Your task to perform on an android device: Clear the shopping cart on ebay.com. Add "razer thresher" to the cart on ebay.com, then select checkout. Image 0: 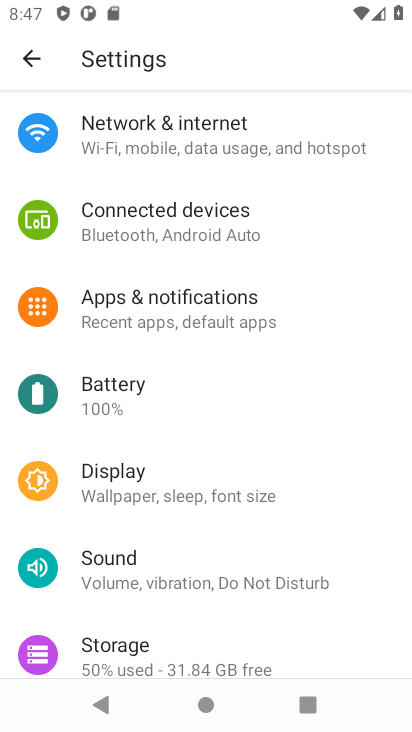
Step 0: press home button
Your task to perform on an android device: Clear the shopping cart on ebay.com. Add "razer thresher" to the cart on ebay.com, then select checkout. Image 1: 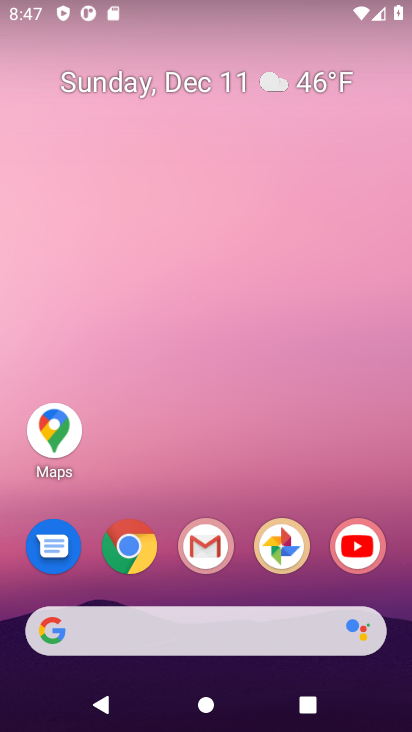
Step 1: click (127, 546)
Your task to perform on an android device: Clear the shopping cart on ebay.com. Add "razer thresher" to the cart on ebay.com, then select checkout. Image 2: 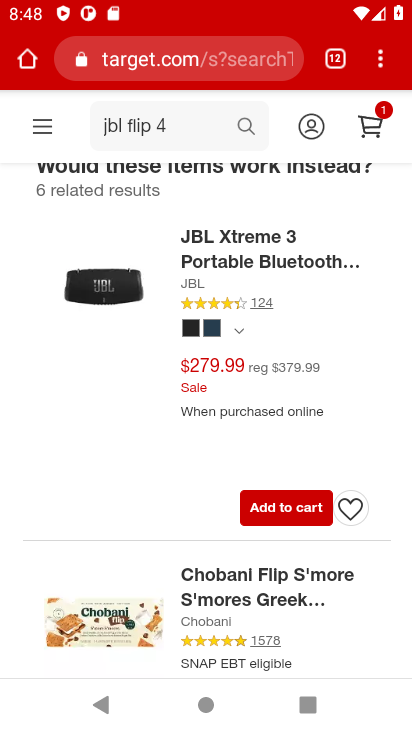
Step 2: click (145, 56)
Your task to perform on an android device: Clear the shopping cart on ebay.com. Add "razer thresher" to the cart on ebay.com, then select checkout. Image 3: 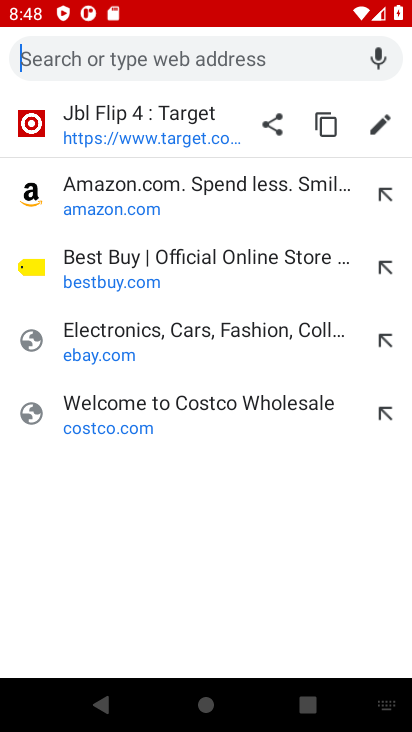
Step 3: click (90, 331)
Your task to perform on an android device: Clear the shopping cart on ebay.com. Add "razer thresher" to the cart on ebay.com, then select checkout. Image 4: 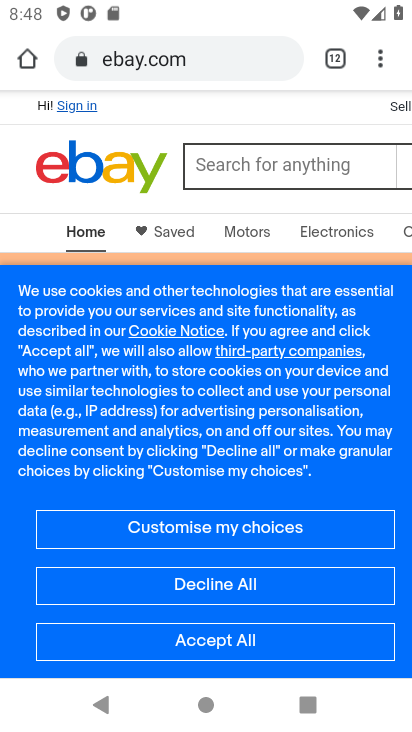
Step 4: drag from (303, 136) to (82, 125)
Your task to perform on an android device: Clear the shopping cart on ebay.com. Add "razer thresher" to the cart on ebay.com, then select checkout. Image 5: 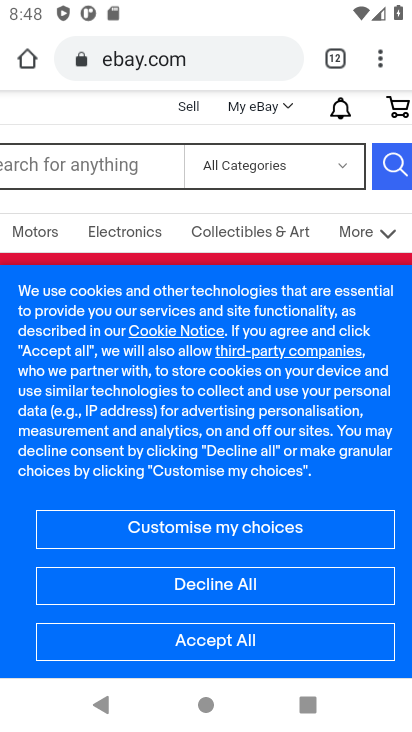
Step 5: click (395, 107)
Your task to perform on an android device: Clear the shopping cart on ebay.com. Add "razer thresher" to the cart on ebay.com, then select checkout. Image 6: 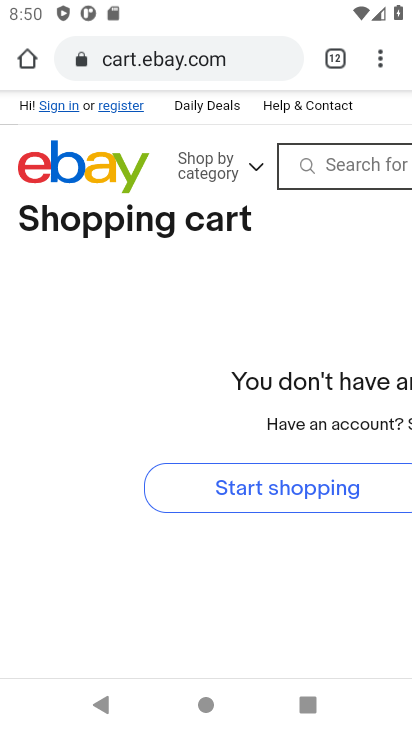
Step 6: click (364, 170)
Your task to perform on an android device: Clear the shopping cart on ebay.com. Add "razer thresher" to the cart on ebay.com, then select checkout. Image 7: 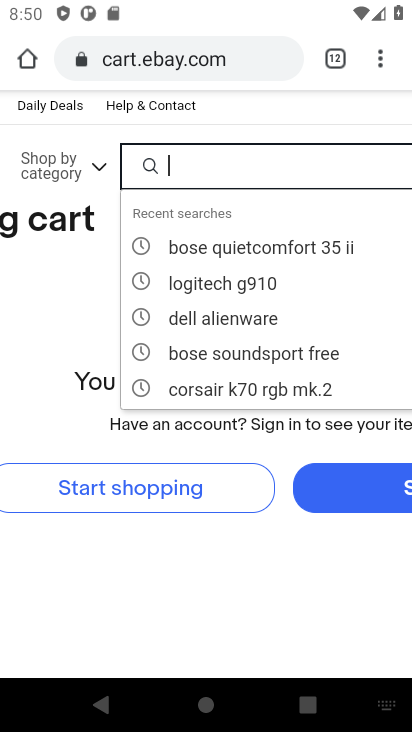
Step 7: type "razer thresher"
Your task to perform on an android device: Clear the shopping cart on ebay.com. Add "razer thresher" to the cart on ebay.com, then select checkout. Image 8: 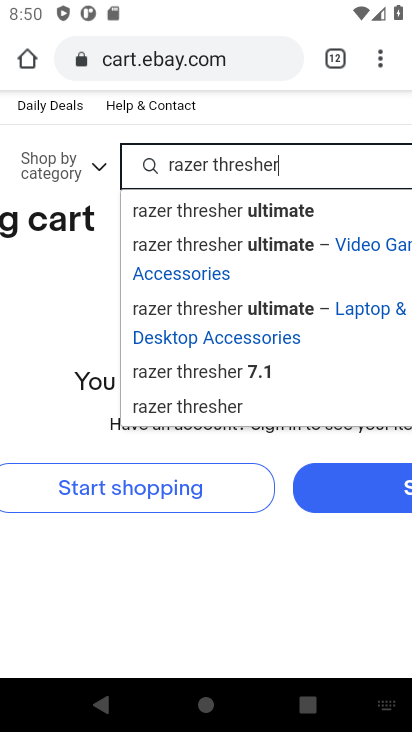
Step 8: click (201, 410)
Your task to perform on an android device: Clear the shopping cart on ebay.com. Add "razer thresher" to the cart on ebay.com, then select checkout. Image 9: 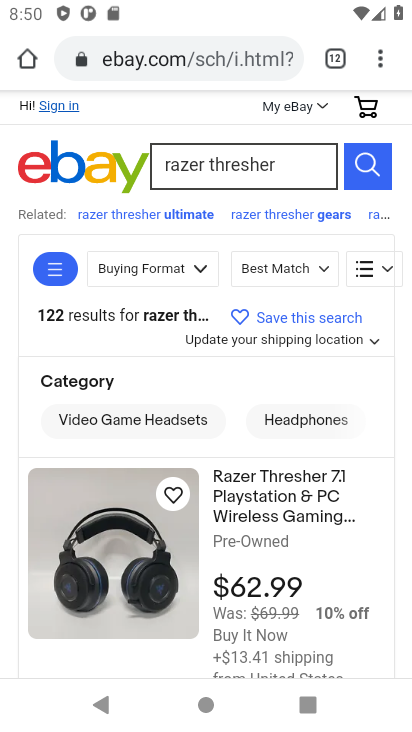
Step 9: drag from (188, 517) to (207, 261)
Your task to perform on an android device: Clear the shopping cart on ebay.com. Add "razer thresher" to the cart on ebay.com, then select checkout. Image 10: 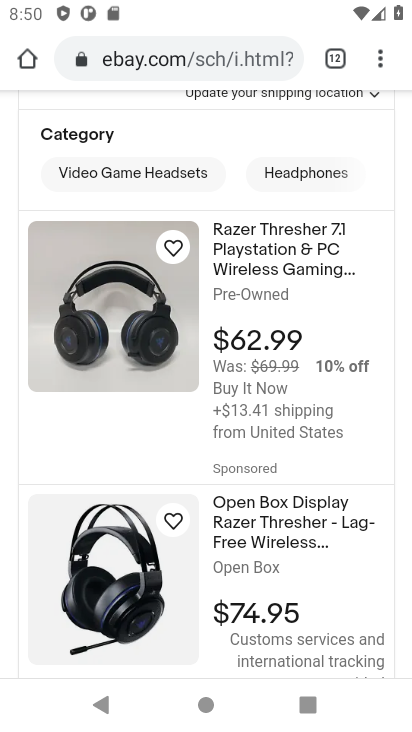
Step 10: click (262, 271)
Your task to perform on an android device: Clear the shopping cart on ebay.com. Add "razer thresher" to the cart on ebay.com, then select checkout. Image 11: 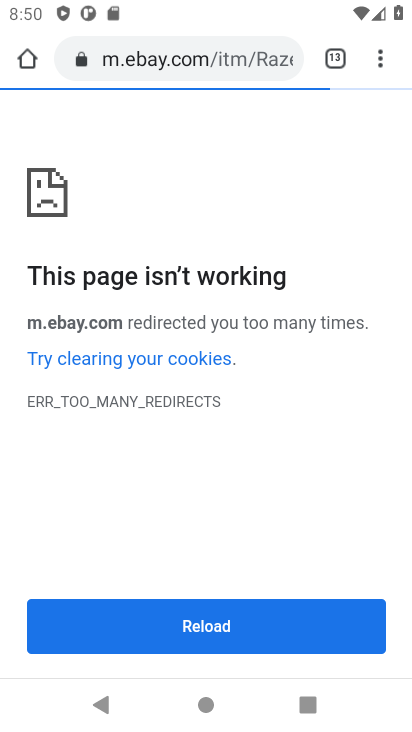
Step 11: task complete